Your task to perform on an android device: choose inbox layout in the gmail app Image 0: 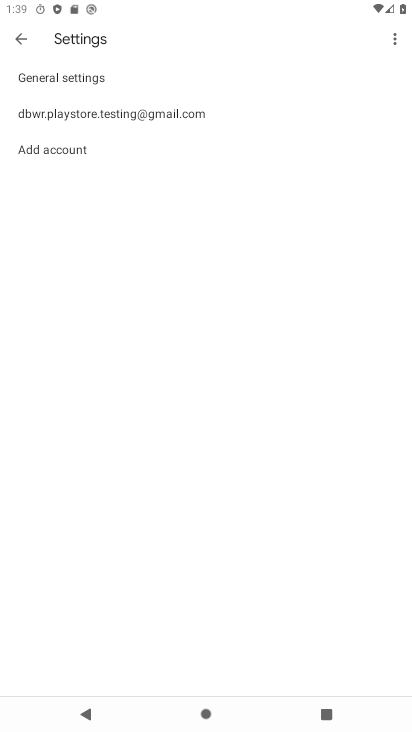
Step 0: press home button
Your task to perform on an android device: choose inbox layout in the gmail app Image 1: 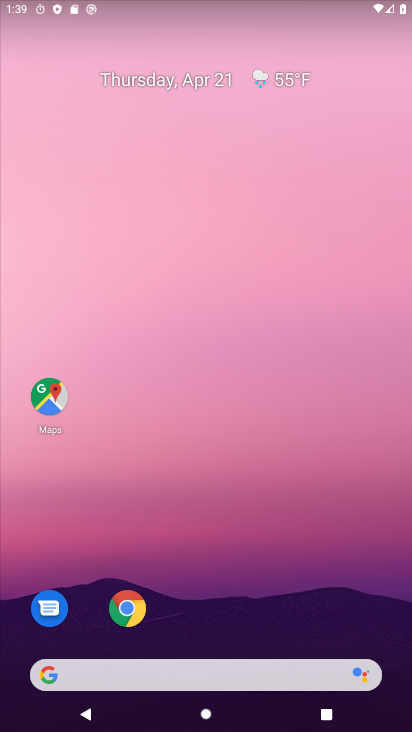
Step 1: drag from (186, 470) to (145, 121)
Your task to perform on an android device: choose inbox layout in the gmail app Image 2: 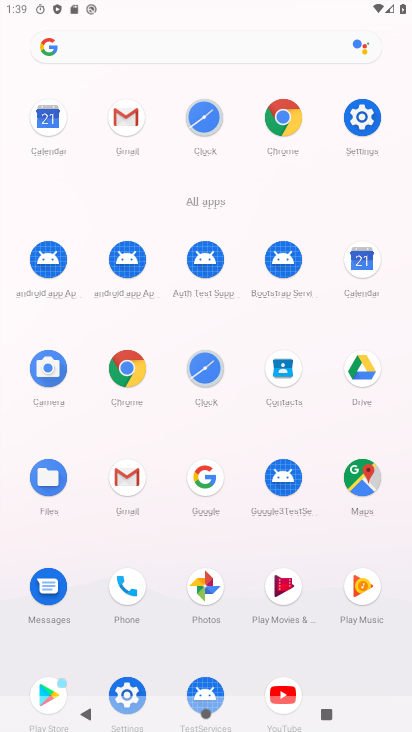
Step 2: click (125, 471)
Your task to perform on an android device: choose inbox layout in the gmail app Image 3: 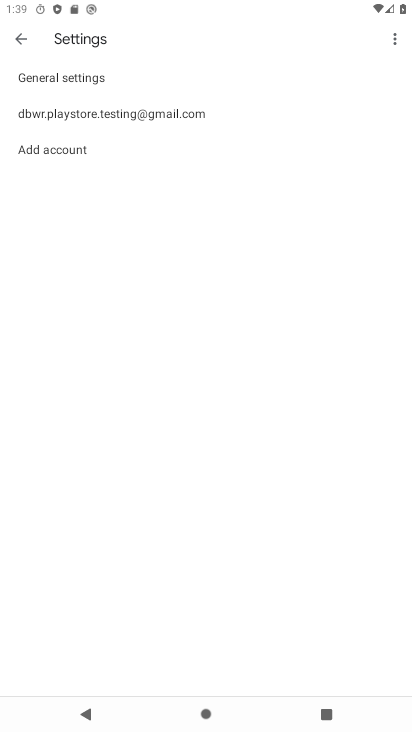
Step 3: click (118, 116)
Your task to perform on an android device: choose inbox layout in the gmail app Image 4: 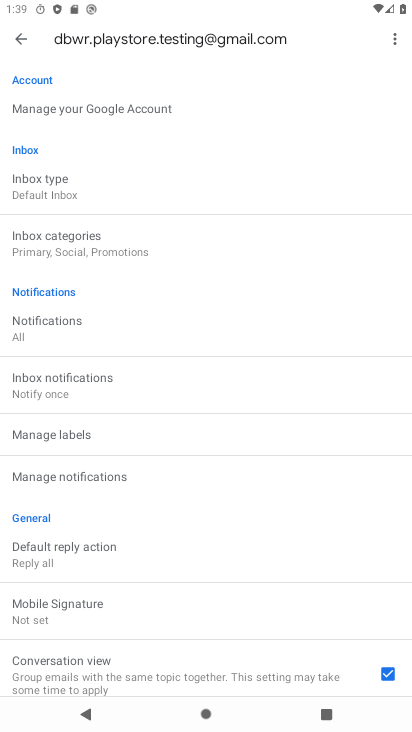
Step 4: click (41, 185)
Your task to perform on an android device: choose inbox layout in the gmail app Image 5: 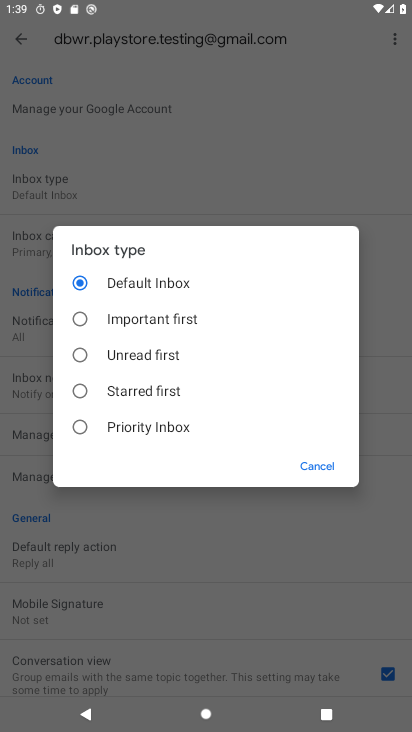
Step 5: click (118, 356)
Your task to perform on an android device: choose inbox layout in the gmail app Image 6: 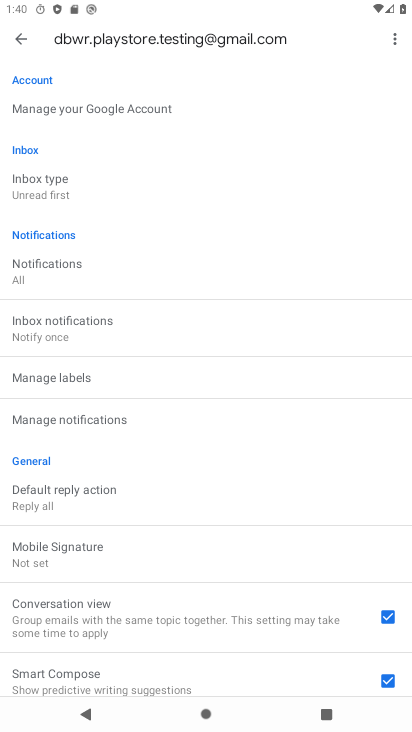
Step 6: task complete